Your task to perform on an android device: turn on wifi Image 0: 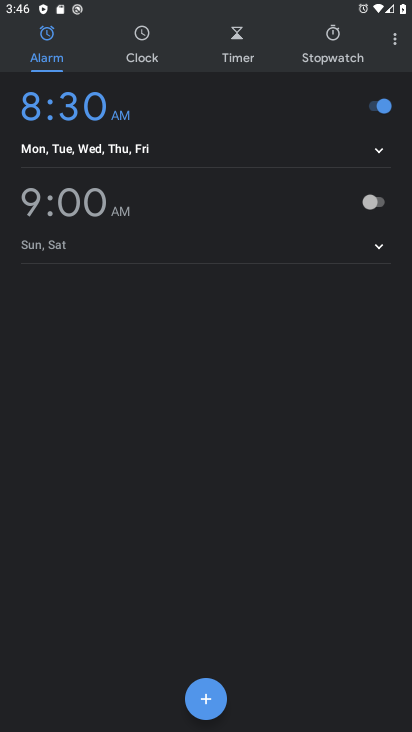
Step 0: press home button
Your task to perform on an android device: turn on wifi Image 1: 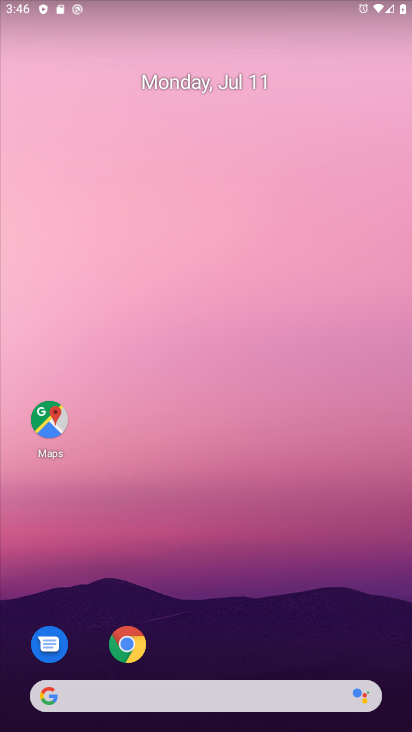
Step 1: drag from (102, 692) to (271, 2)
Your task to perform on an android device: turn on wifi Image 2: 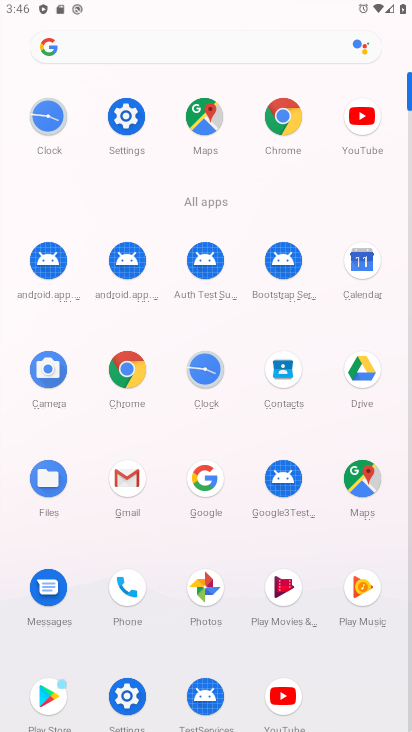
Step 2: click (124, 122)
Your task to perform on an android device: turn on wifi Image 3: 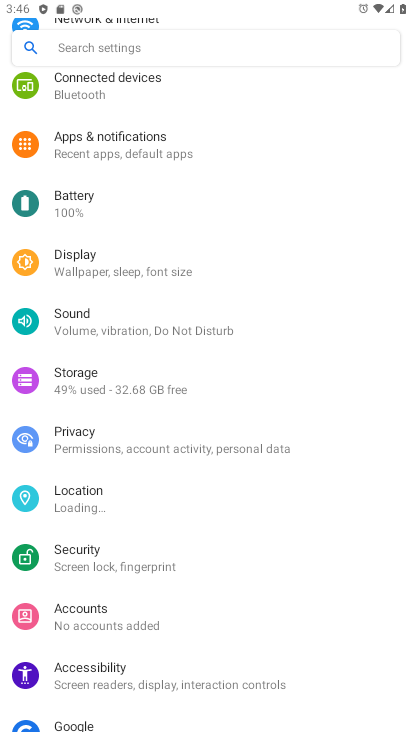
Step 3: drag from (140, 122) to (140, 502)
Your task to perform on an android device: turn on wifi Image 4: 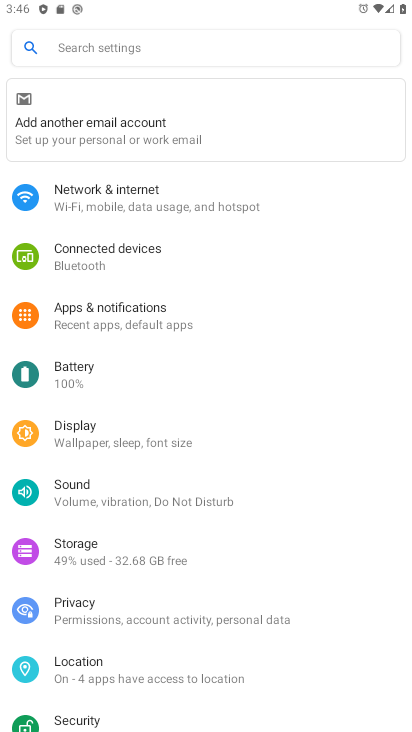
Step 4: click (110, 207)
Your task to perform on an android device: turn on wifi Image 5: 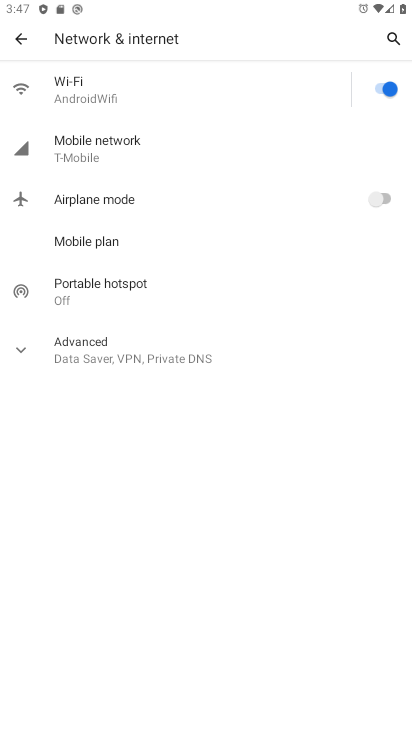
Step 5: task complete